Your task to perform on an android device: turn on translation in the chrome app Image 0: 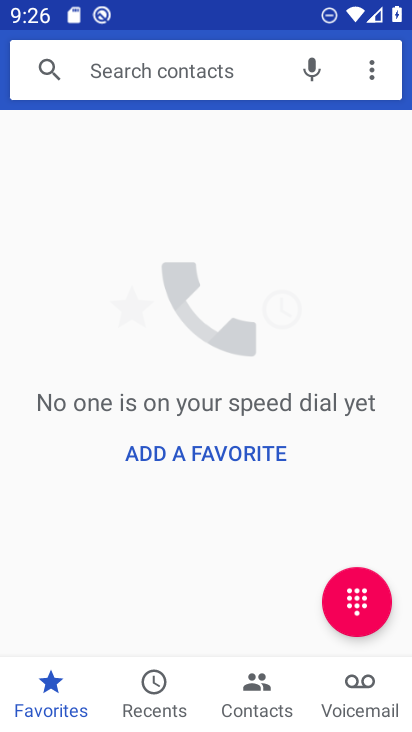
Step 0: press home button
Your task to perform on an android device: turn on translation in the chrome app Image 1: 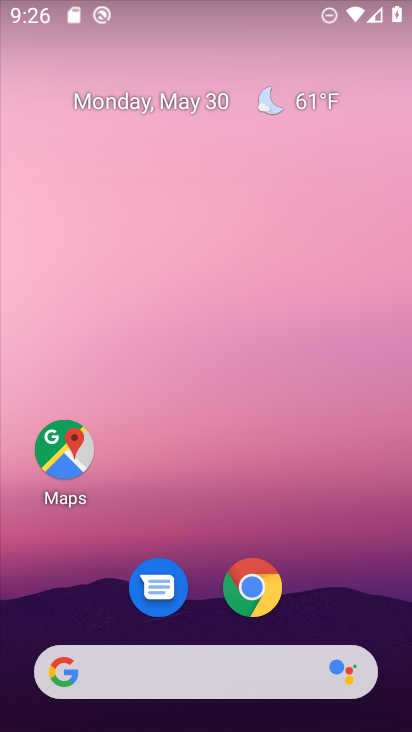
Step 1: click (243, 590)
Your task to perform on an android device: turn on translation in the chrome app Image 2: 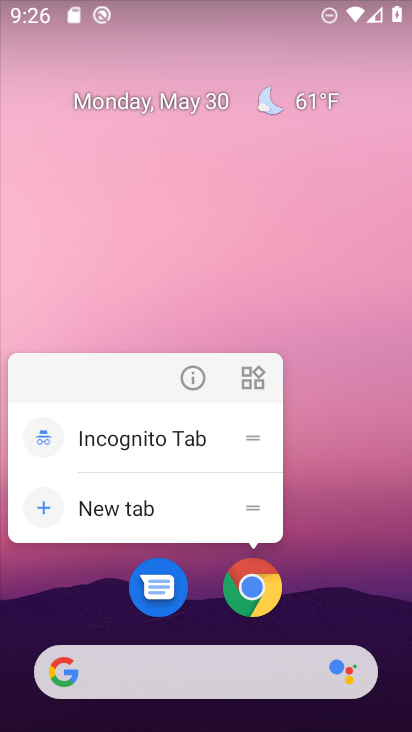
Step 2: click (254, 602)
Your task to perform on an android device: turn on translation in the chrome app Image 3: 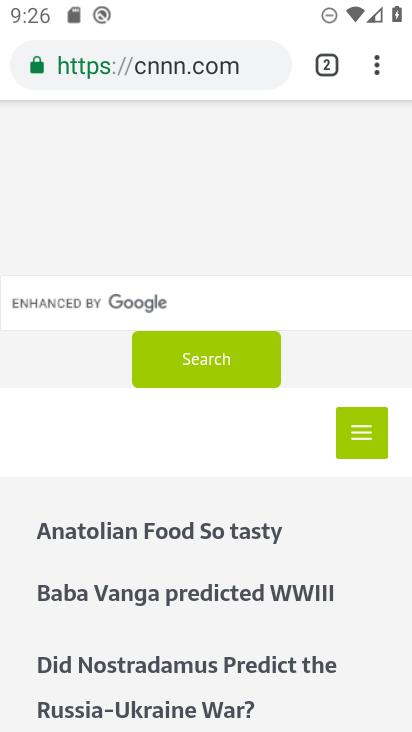
Step 3: click (276, 324)
Your task to perform on an android device: turn on translation in the chrome app Image 4: 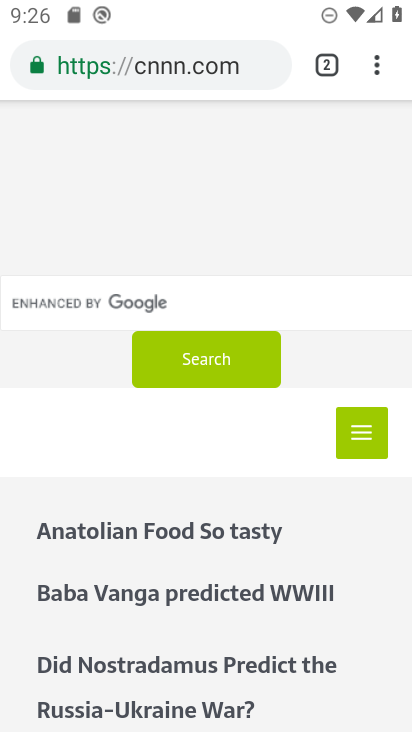
Step 4: click (372, 61)
Your task to perform on an android device: turn on translation in the chrome app Image 5: 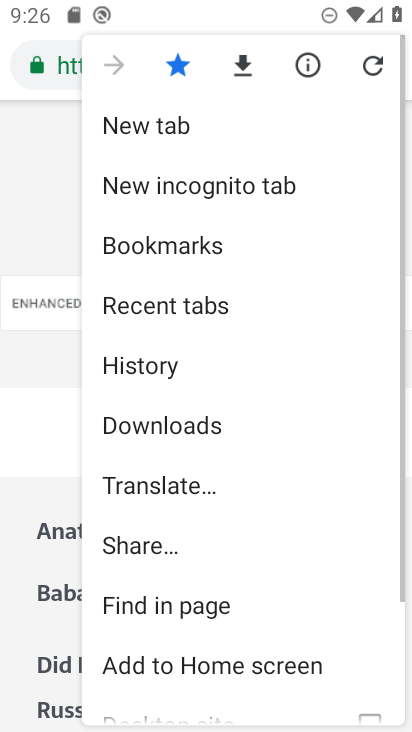
Step 5: drag from (178, 605) to (189, 221)
Your task to perform on an android device: turn on translation in the chrome app Image 6: 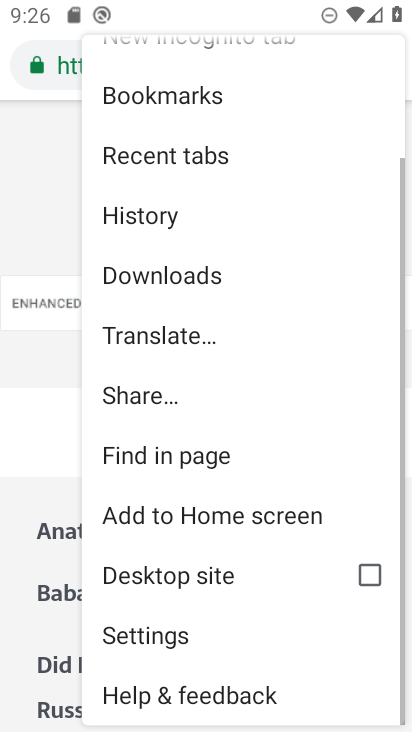
Step 6: click (137, 643)
Your task to perform on an android device: turn on translation in the chrome app Image 7: 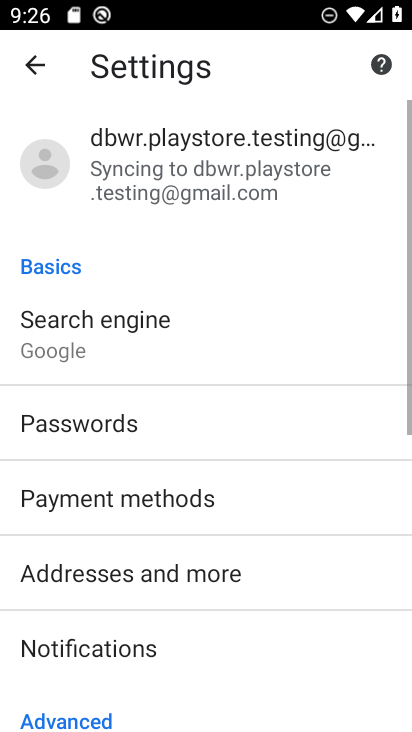
Step 7: drag from (136, 639) to (94, 52)
Your task to perform on an android device: turn on translation in the chrome app Image 8: 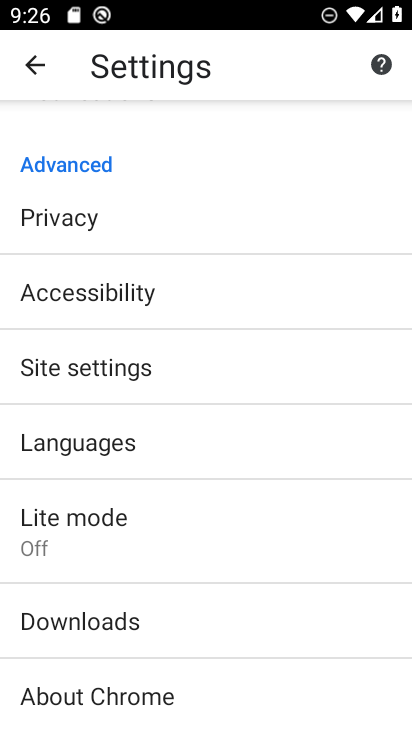
Step 8: click (47, 429)
Your task to perform on an android device: turn on translation in the chrome app Image 9: 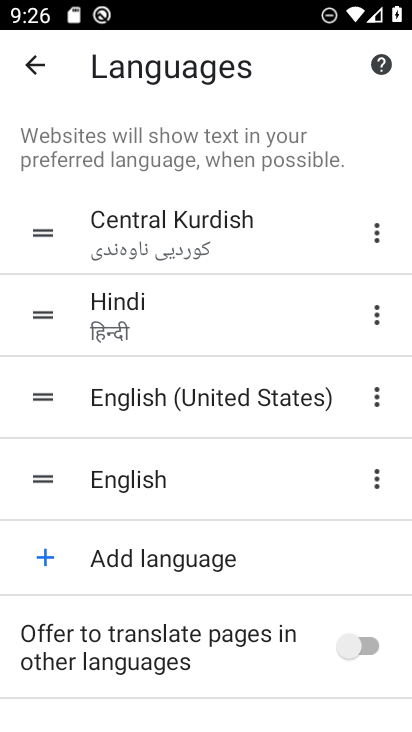
Step 9: drag from (256, 496) to (249, 273)
Your task to perform on an android device: turn on translation in the chrome app Image 10: 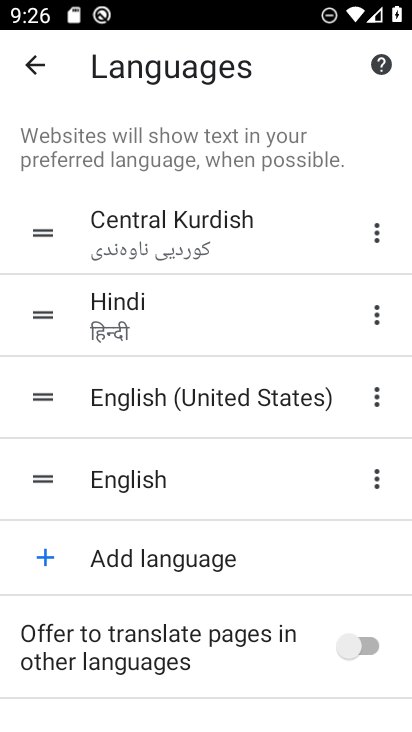
Step 10: click (364, 651)
Your task to perform on an android device: turn on translation in the chrome app Image 11: 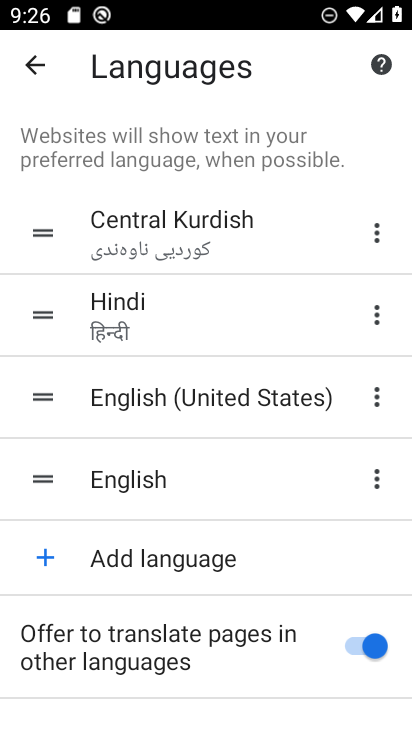
Step 11: task complete